Your task to perform on an android device: turn off location history Image 0: 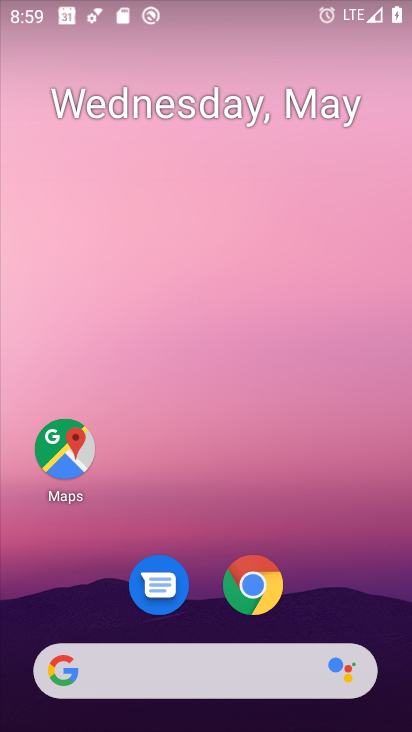
Step 0: drag from (351, 575) to (292, 33)
Your task to perform on an android device: turn off location history Image 1: 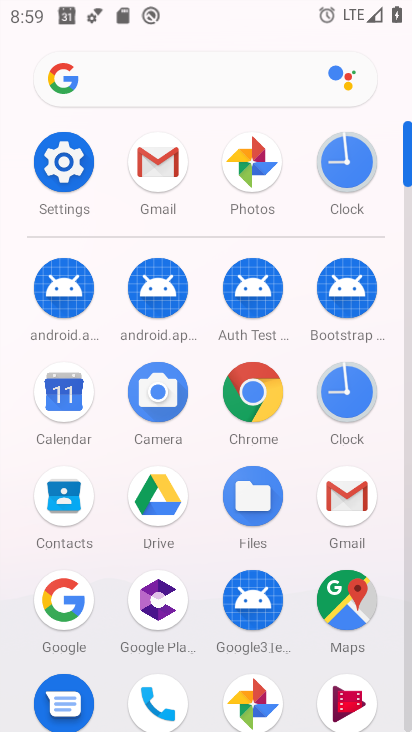
Step 1: click (68, 164)
Your task to perform on an android device: turn off location history Image 2: 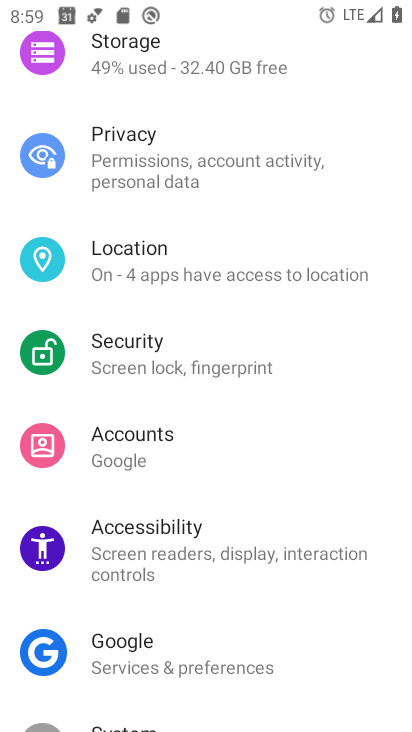
Step 2: click (260, 265)
Your task to perform on an android device: turn off location history Image 3: 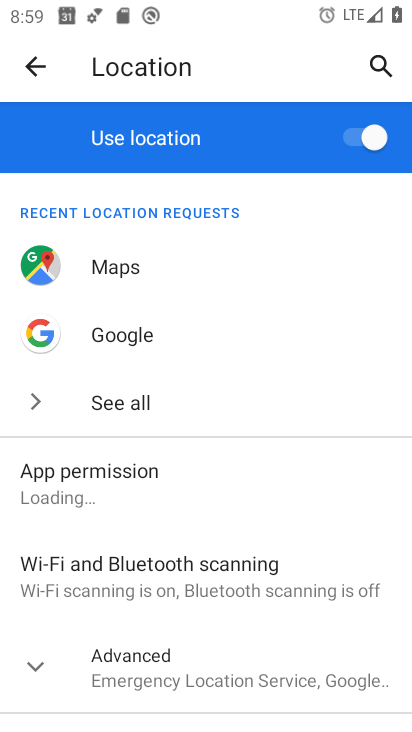
Step 3: click (38, 665)
Your task to perform on an android device: turn off location history Image 4: 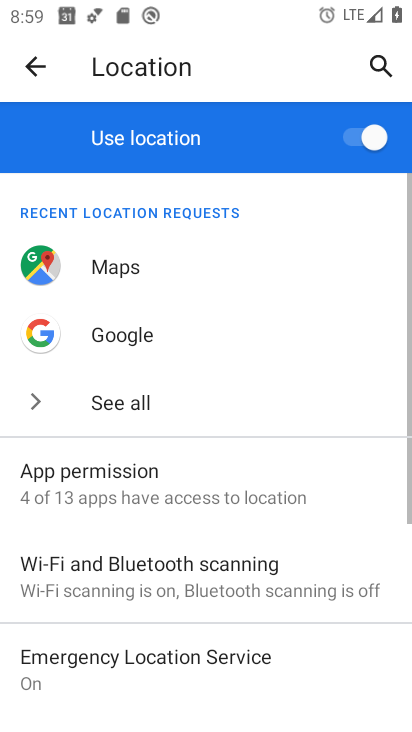
Step 4: drag from (248, 499) to (241, 147)
Your task to perform on an android device: turn off location history Image 5: 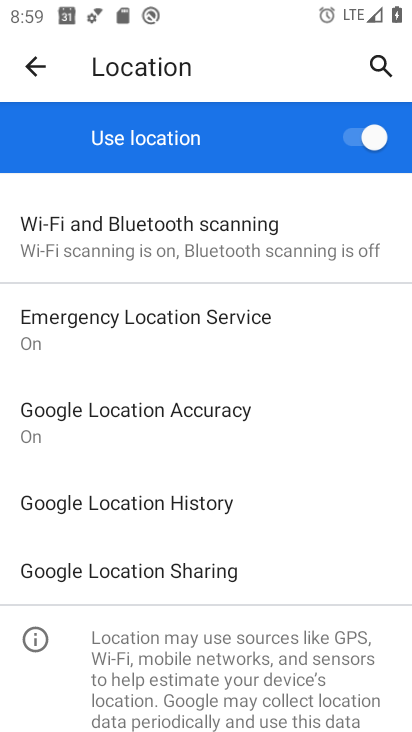
Step 5: click (163, 505)
Your task to perform on an android device: turn off location history Image 6: 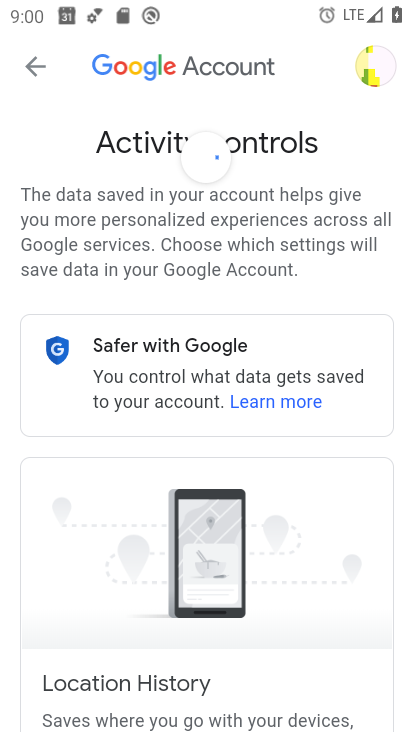
Step 6: task complete